Your task to perform on an android device: toggle location history Image 0: 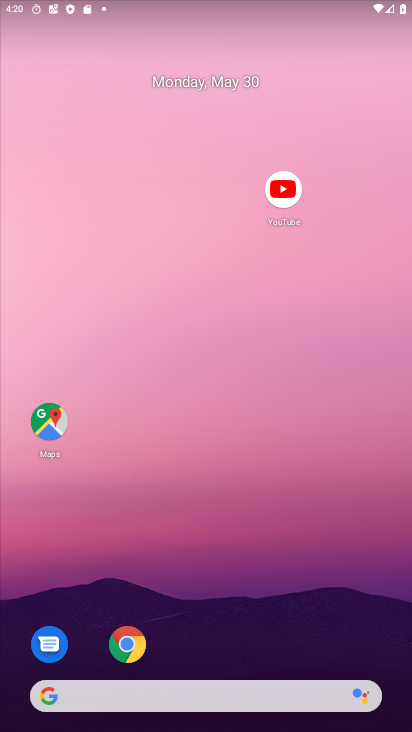
Step 0: drag from (206, 640) to (212, 81)
Your task to perform on an android device: toggle location history Image 1: 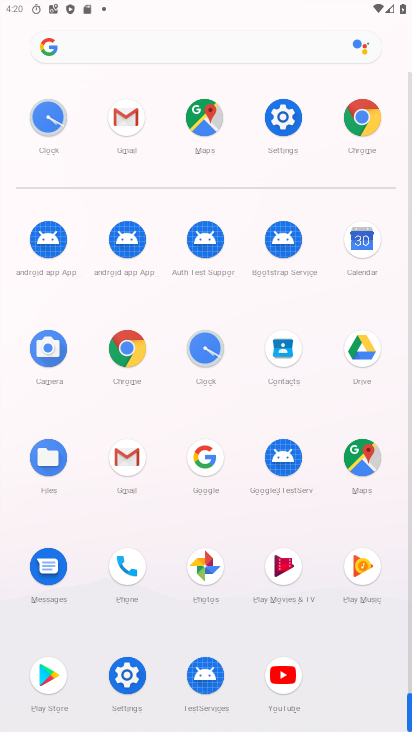
Step 1: click (279, 115)
Your task to perform on an android device: toggle location history Image 2: 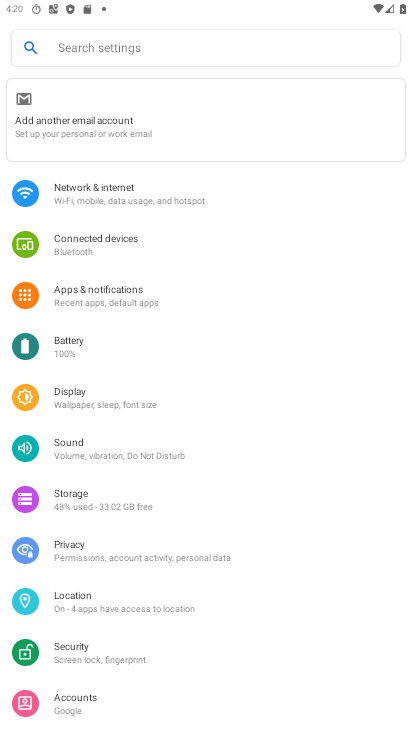
Step 2: click (73, 608)
Your task to perform on an android device: toggle location history Image 3: 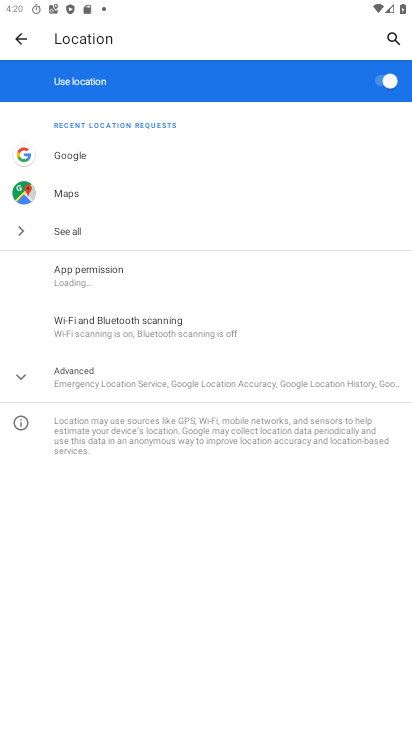
Step 3: click (141, 381)
Your task to perform on an android device: toggle location history Image 4: 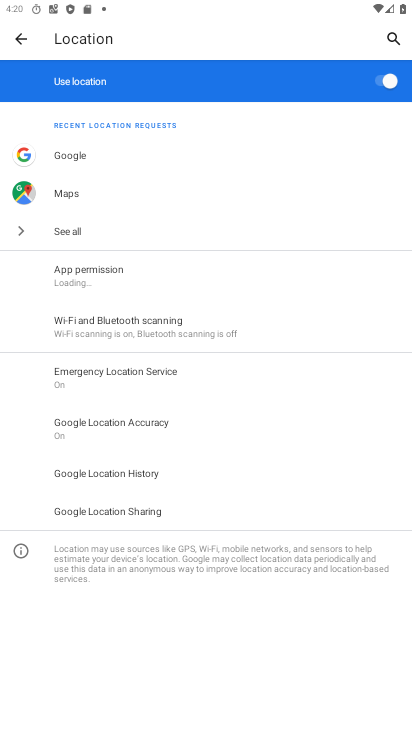
Step 4: click (111, 484)
Your task to perform on an android device: toggle location history Image 5: 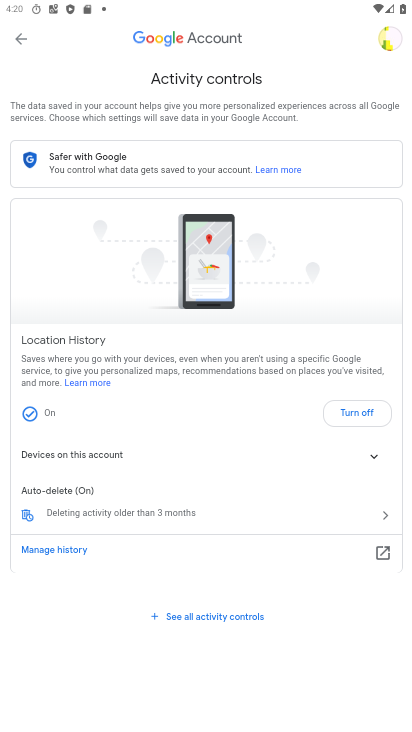
Step 5: click (360, 410)
Your task to perform on an android device: toggle location history Image 6: 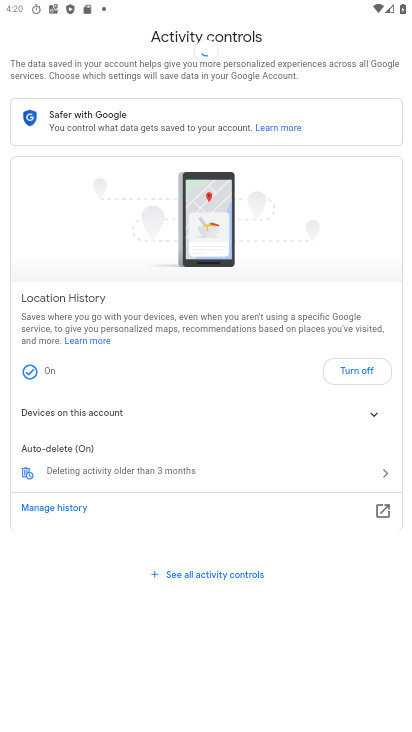
Step 6: click (369, 706)
Your task to perform on an android device: toggle location history Image 7: 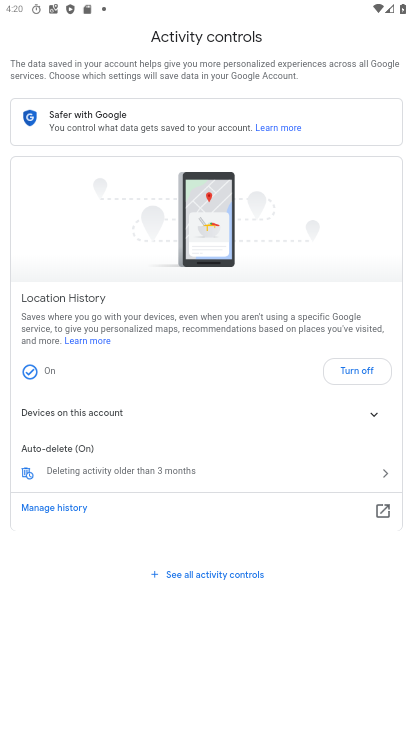
Step 7: task complete